Your task to perform on an android device: clear history in the chrome app Image 0: 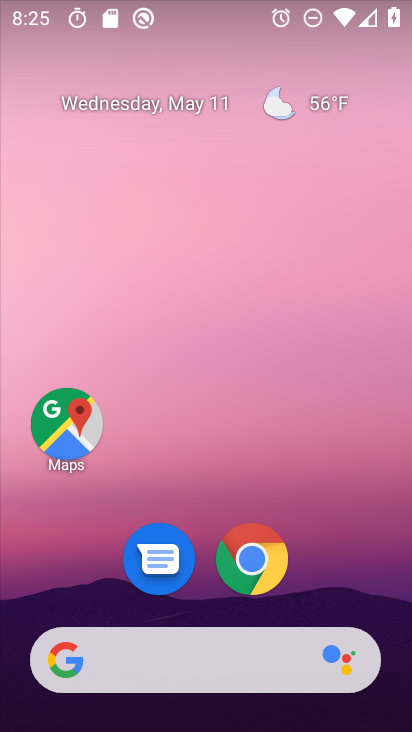
Step 0: click (256, 562)
Your task to perform on an android device: clear history in the chrome app Image 1: 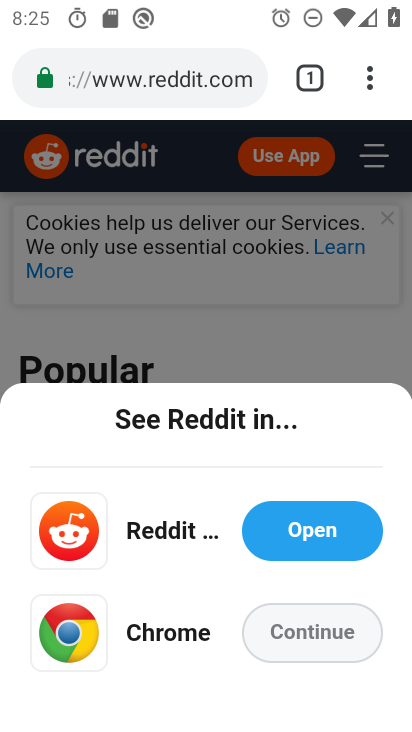
Step 1: click (374, 87)
Your task to perform on an android device: clear history in the chrome app Image 2: 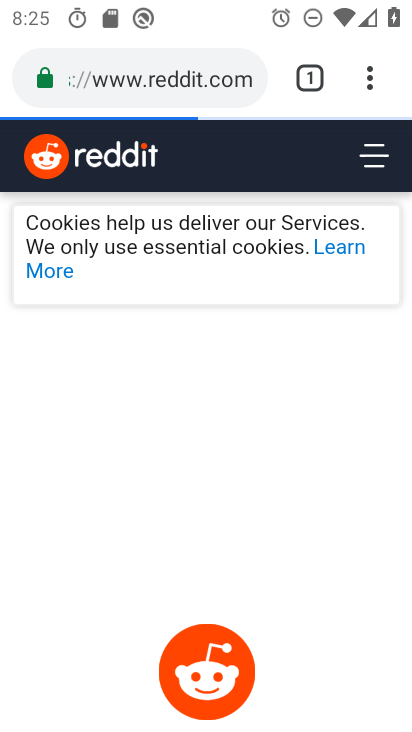
Step 2: click (373, 86)
Your task to perform on an android device: clear history in the chrome app Image 3: 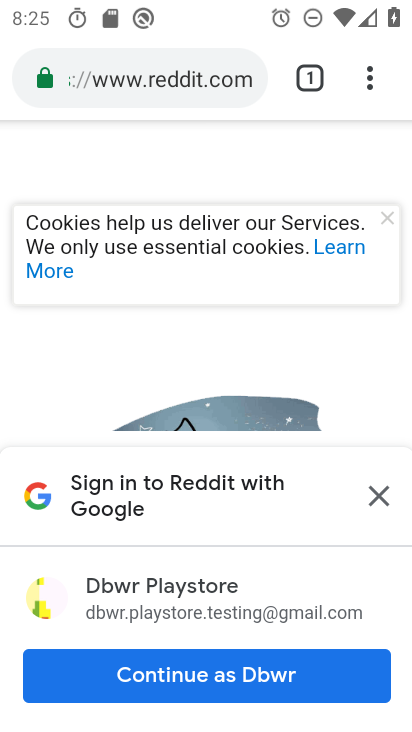
Step 3: click (368, 90)
Your task to perform on an android device: clear history in the chrome app Image 4: 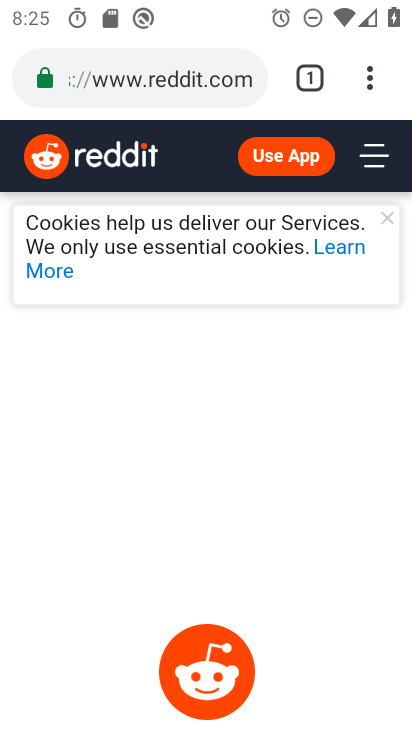
Step 4: click (277, 132)
Your task to perform on an android device: clear history in the chrome app Image 5: 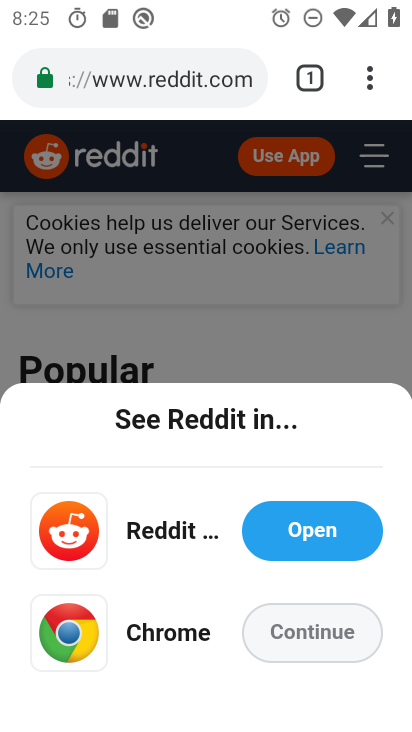
Step 5: click (363, 64)
Your task to perform on an android device: clear history in the chrome app Image 6: 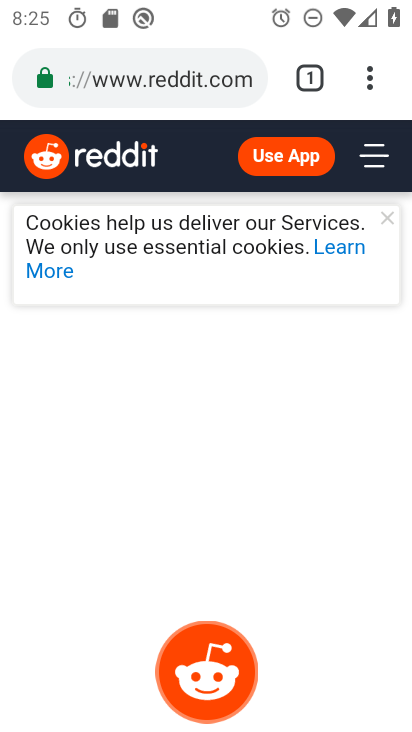
Step 6: click (384, 62)
Your task to perform on an android device: clear history in the chrome app Image 7: 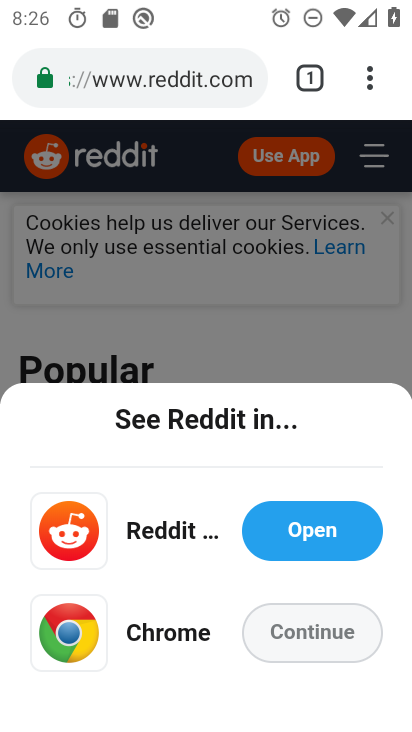
Step 7: click (277, 632)
Your task to perform on an android device: clear history in the chrome app Image 8: 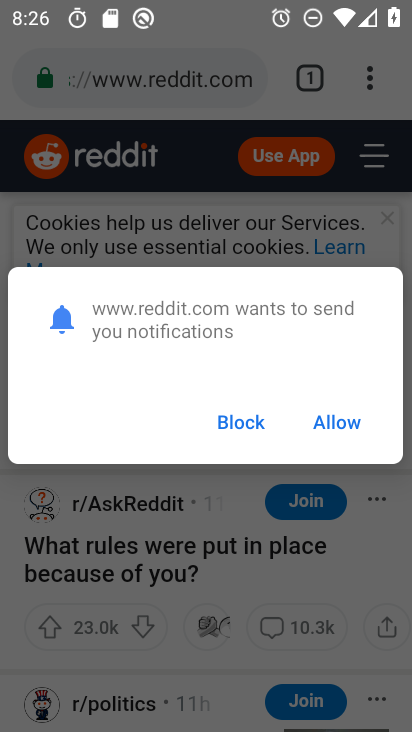
Step 8: click (240, 422)
Your task to perform on an android device: clear history in the chrome app Image 9: 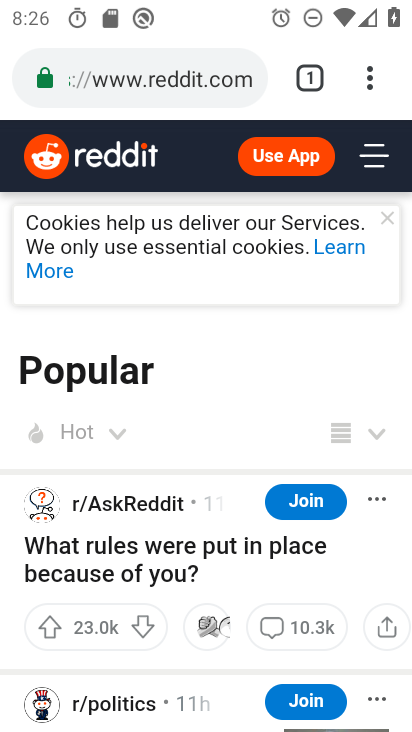
Step 9: click (366, 63)
Your task to perform on an android device: clear history in the chrome app Image 10: 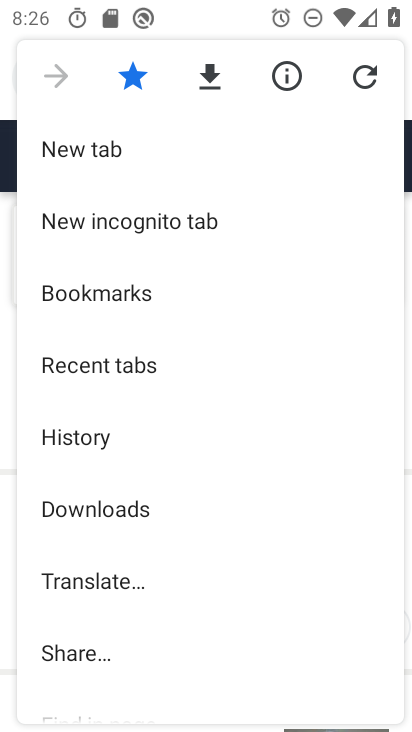
Step 10: click (56, 436)
Your task to perform on an android device: clear history in the chrome app Image 11: 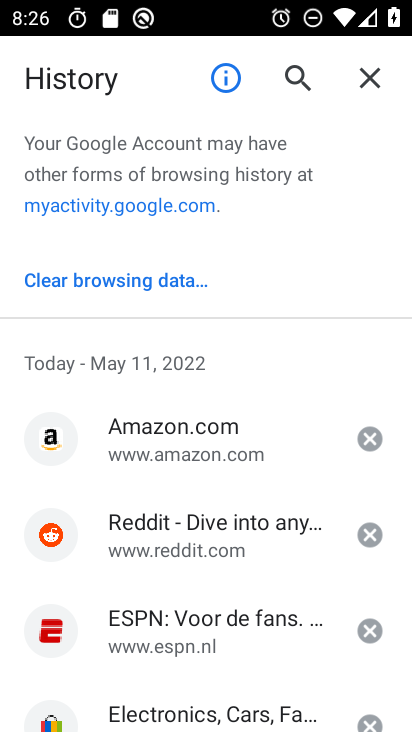
Step 11: click (138, 279)
Your task to perform on an android device: clear history in the chrome app Image 12: 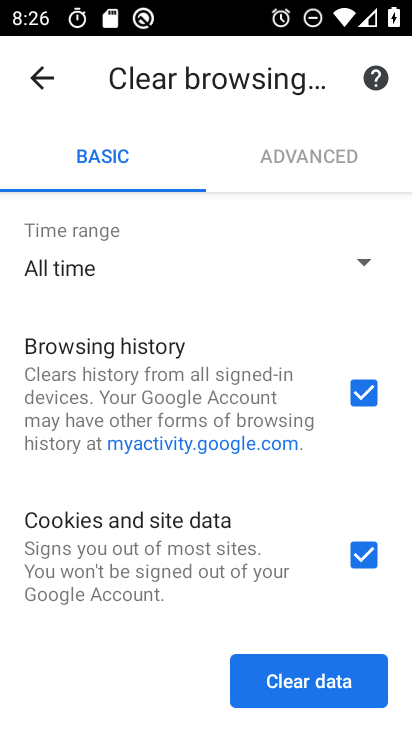
Step 12: click (335, 694)
Your task to perform on an android device: clear history in the chrome app Image 13: 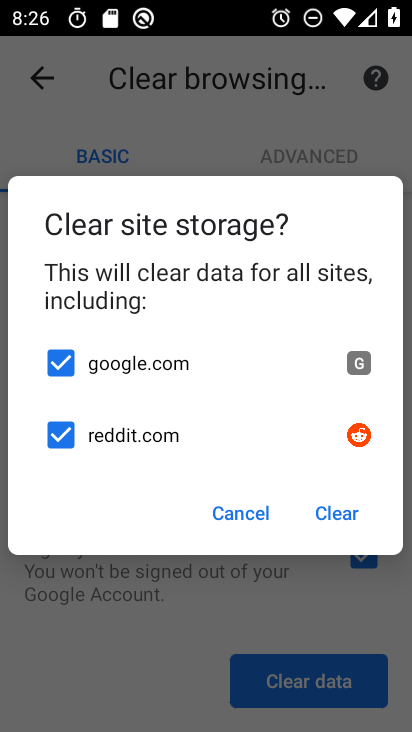
Step 13: click (335, 694)
Your task to perform on an android device: clear history in the chrome app Image 14: 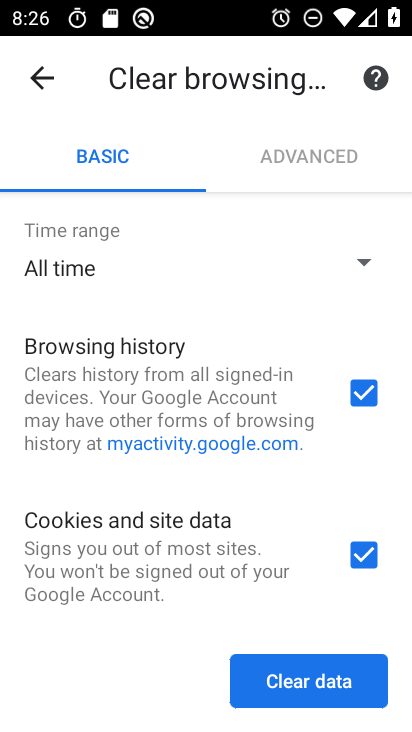
Step 14: click (328, 660)
Your task to perform on an android device: clear history in the chrome app Image 15: 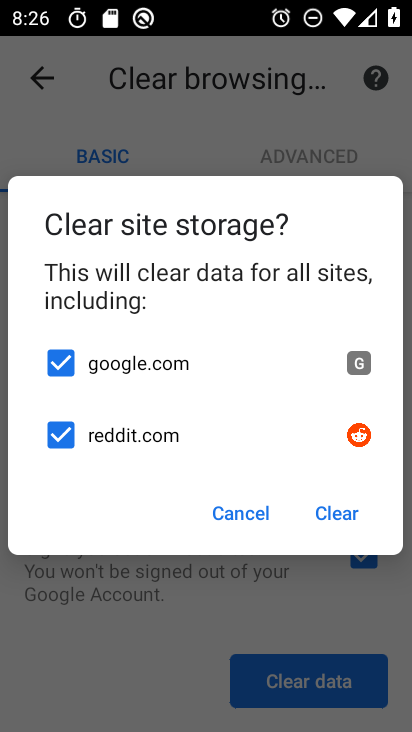
Step 15: click (329, 514)
Your task to perform on an android device: clear history in the chrome app Image 16: 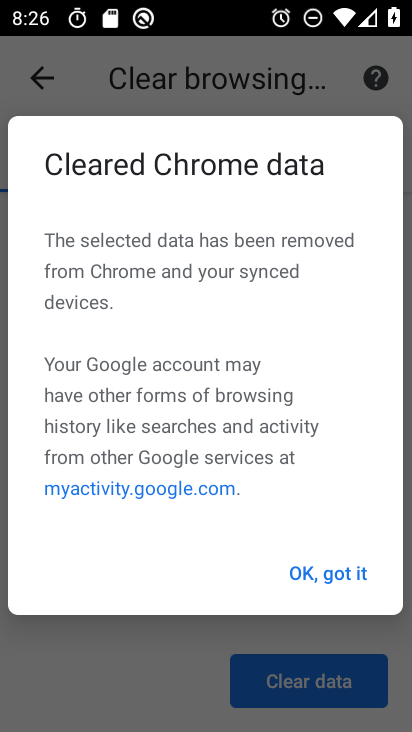
Step 16: click (331, 573)
Your task to perform on an android device: clear history in the chrome app Image 17: 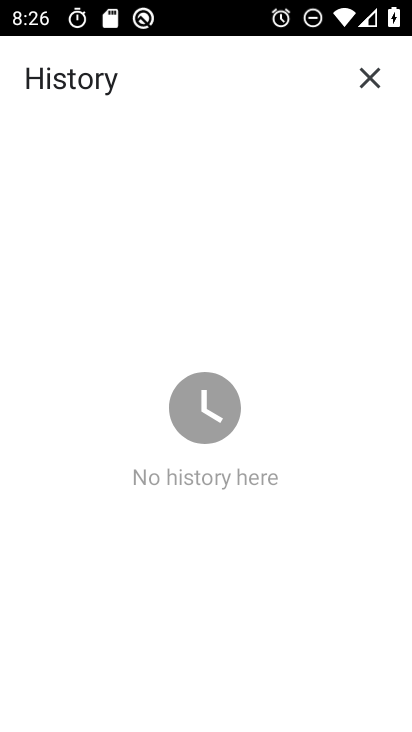
Step 17: task complete